Your task to perform on an android device: Go to network settings Image 0: 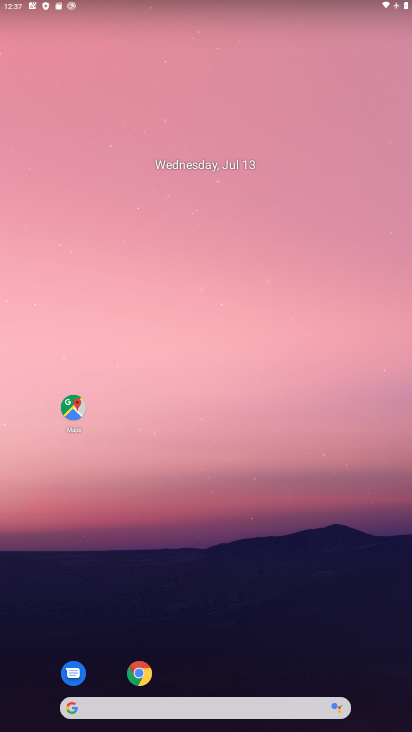
Step 0: drag from (238, 661) to (289, 135)
Your task to perform on an android device: Go to network settings Image 1: 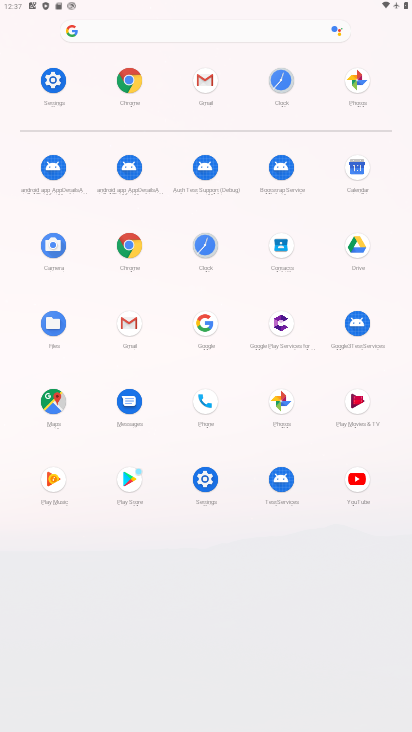
Step 1: click (41, 81)
Your task to perform on an android device: Go to network settings Image 2: 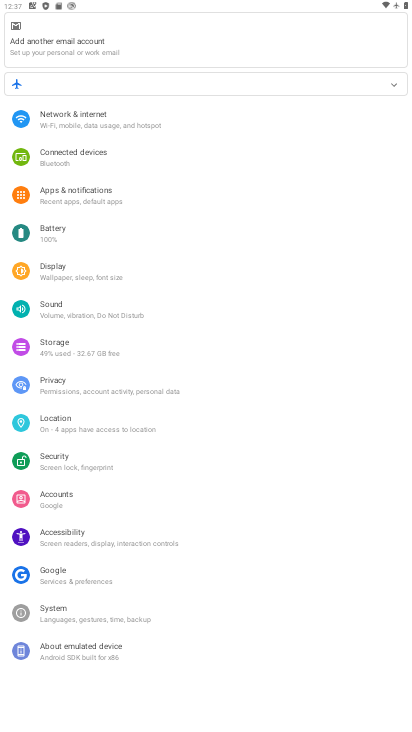
Step 2: click (139, 130)
Your task to perform on an android device: Go to network settings Image 3: 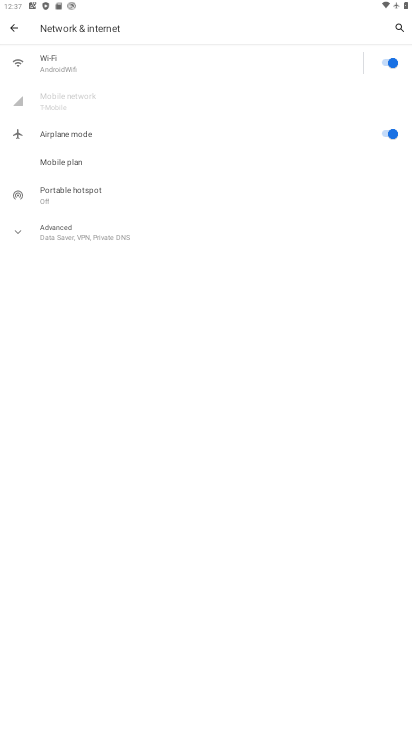
Step 3: click (159, 107)
Your task to perform on an android device: Go to network settings Image 4: 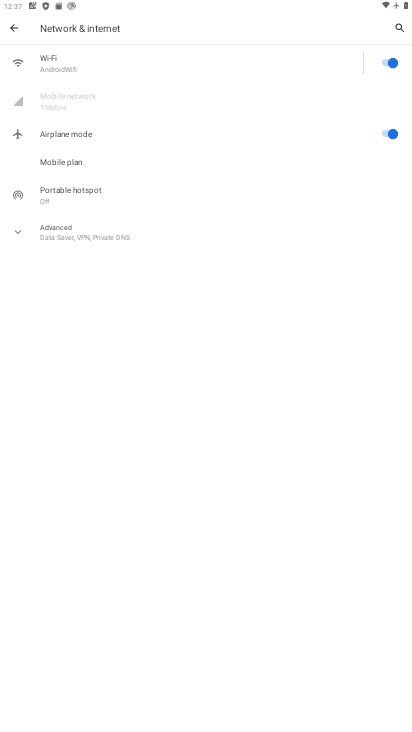
Step 4: task complete